Your task to perform on an android device: Search for seafood restaurants on Google Maps Image 0: 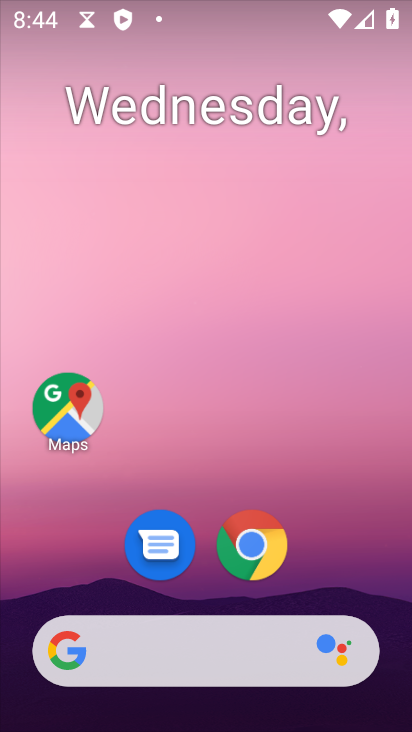
Step 0: press home button
Your task to perform on an android device: Search for seafood restaurants on Google Maps Image 1: 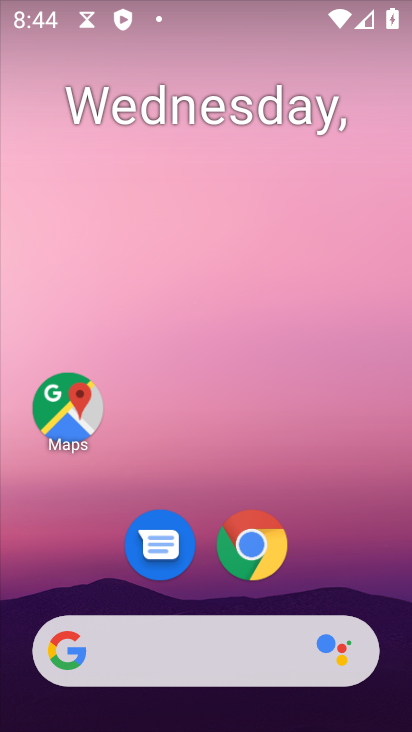
Step 1: click (68, 412)
Your task to perform on an android device: Search for seafood restaurants on Google Maps Image 2: 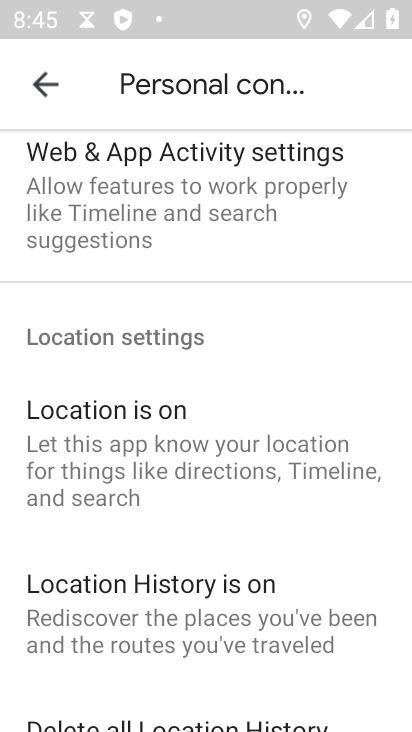
Step 2: click (53, 82)
Your task to perform on an android device: Search for seafood restaurants on Google Maps Image 3: 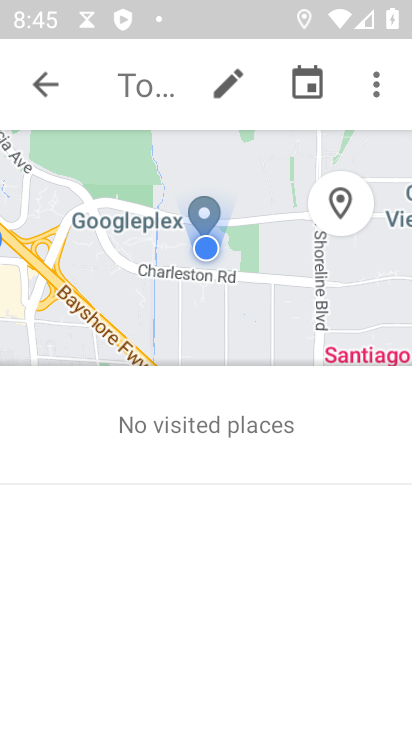
Step 3: click (53, 82)
Your task to perform on an android device: Search for seafood restaurants on Google Maps Image 4: 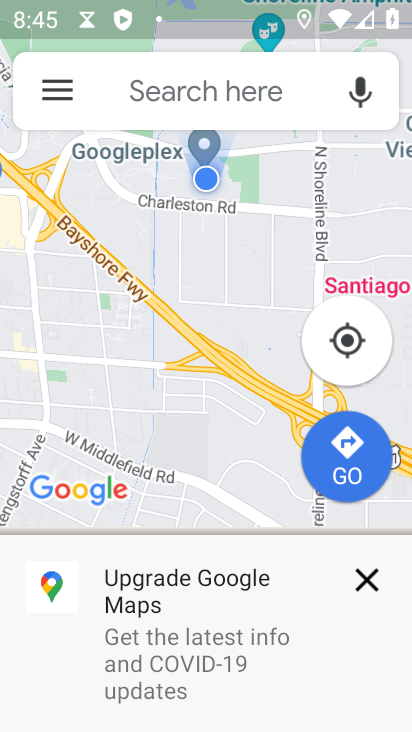
Step 4: click (226, 87)
Your task to perform on an android device: Search for seafood restaurants on Google Maps Image 5: 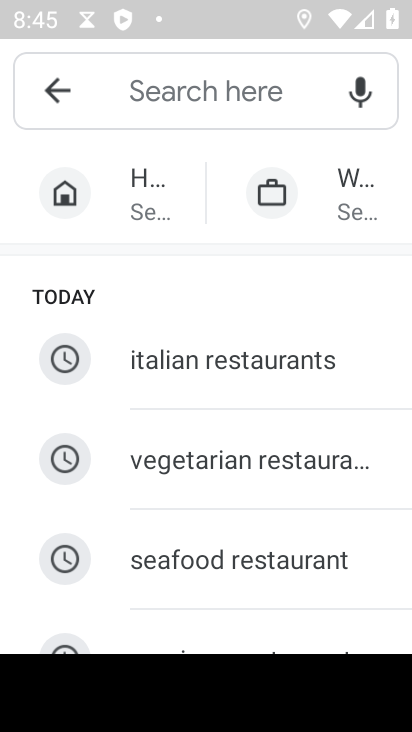
Step 5: click (188, 571)
Your task to perform on an android device: Search for seafood restaurants on Google Maps Image 6: 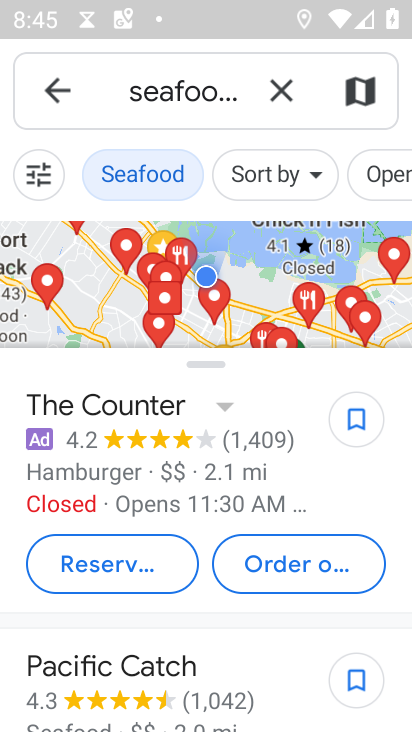
Step 6: task complete